Your task to perform on an android device: clear history in the chrome app Image 0: 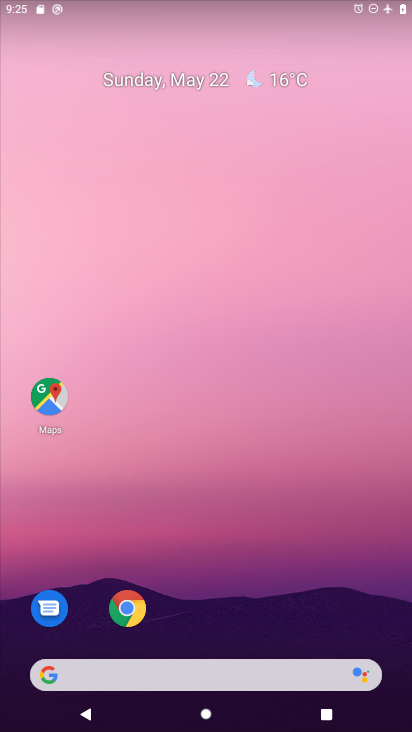
Step 0: click (127, 609)
Your task to perform on an android device: clear history in the chrome app Image 1: 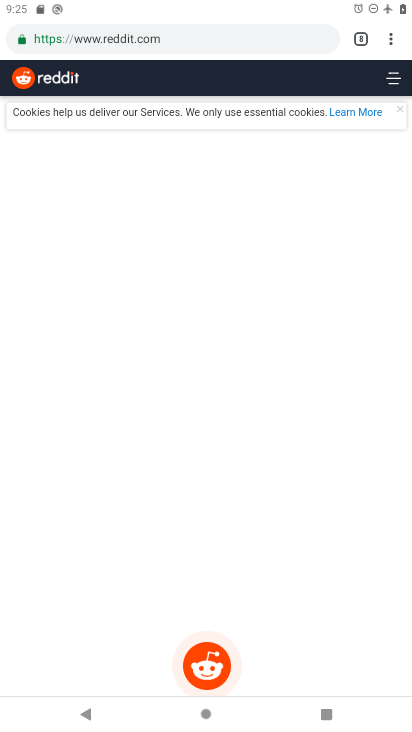
Step 1: click (391, 43)
Your task to perform on an android device: clear history in the chrome app Image 2: 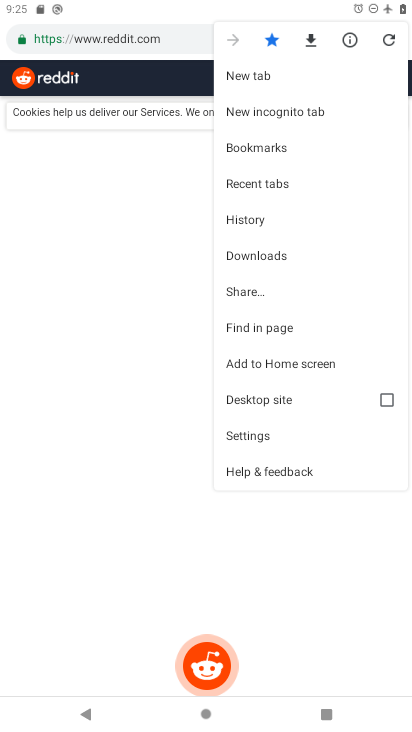
Step 2: click (245, 216)
Your task to perform on an android device: clear history in the chrome app Image 3: 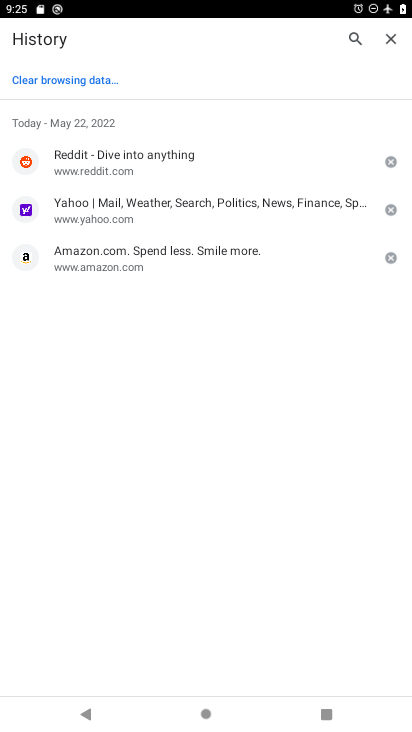
Step 3: click (44, 79)
Your task to perform on an android device: clear history in the chrome app Image 4: 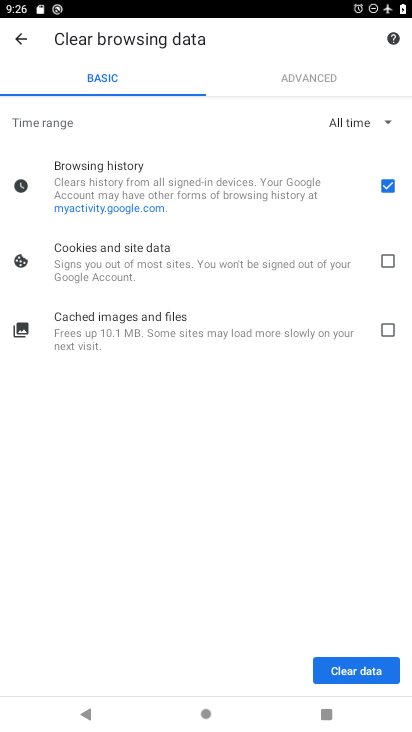
Step 4: click (360, 669)
Your task to perform on an android device: clear history in the chrome app Image 5: 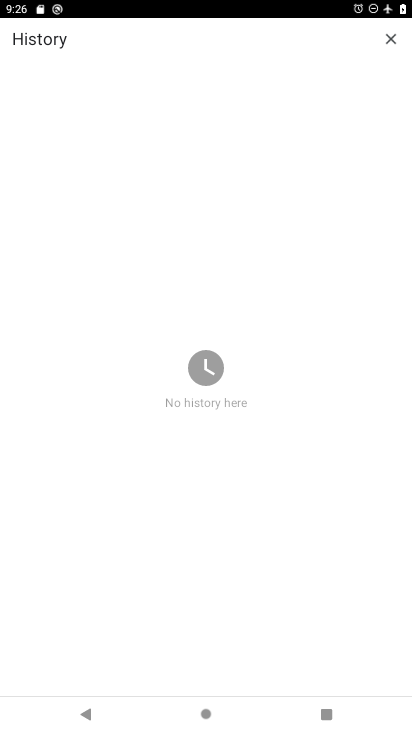
Step 5: task complete